Your task to perform on an android device: Is it going to rain today? Image 0: 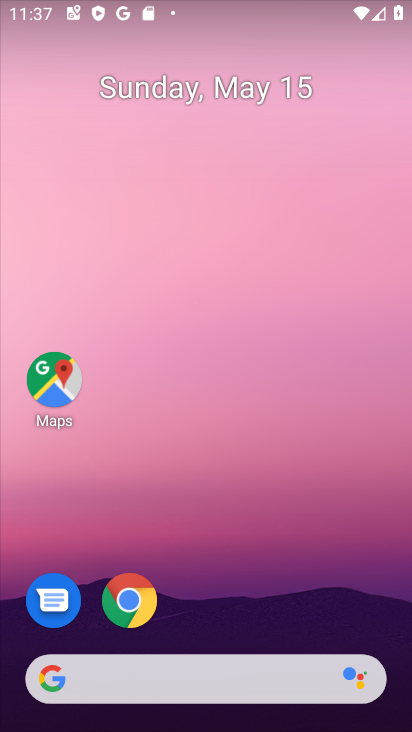
Step 0: click (134, 594)
Your task to perform on an android device: Is it going to rain today? Image 1: 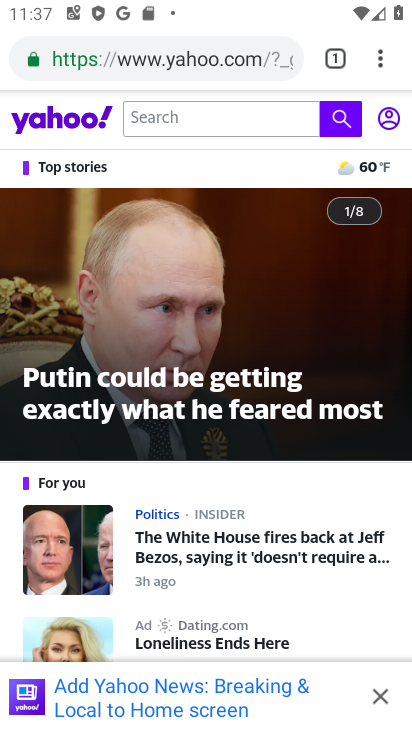
Step 1: press home button
Your task to perform on an android device: Is it going to rain today? Image 2: 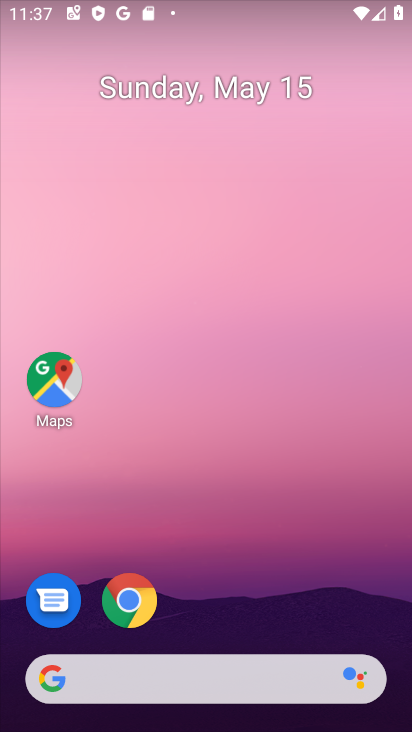
Step 2: drag from (136, 225) to (411, 159)
Your task to perform on an android device: Is it going to rain today? Image 3: 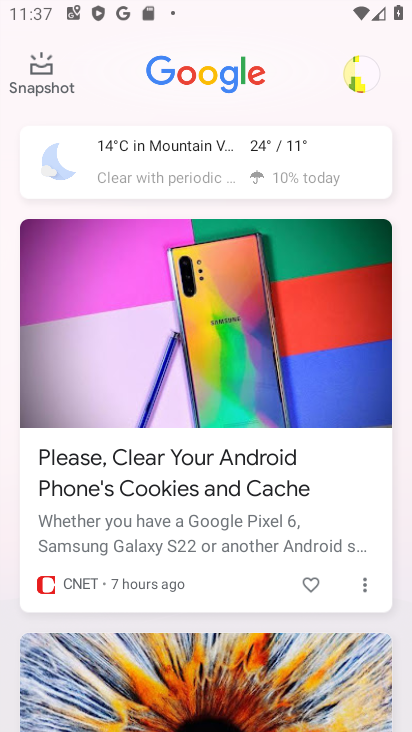
Step 3: click (157, 156)
Your task to perform on an android device: Is it going to rain today? Image 4: 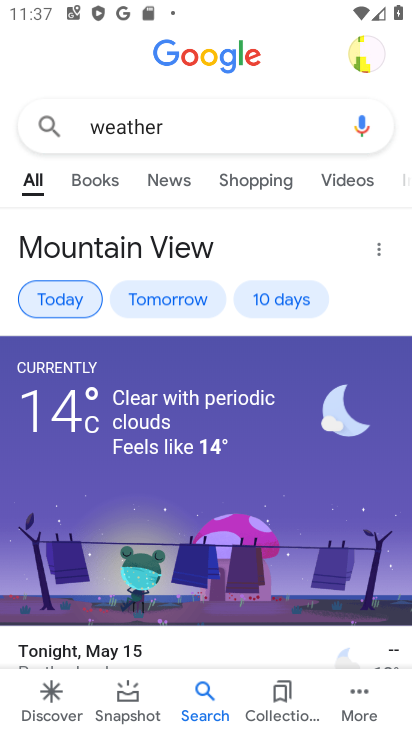
Step 4: task complete